Your task to perform on an android device: open app "YouTube Kids" (install if not already installed) and enter user name: "atmospheric@gmail.com" and password: "raze" Image 0: 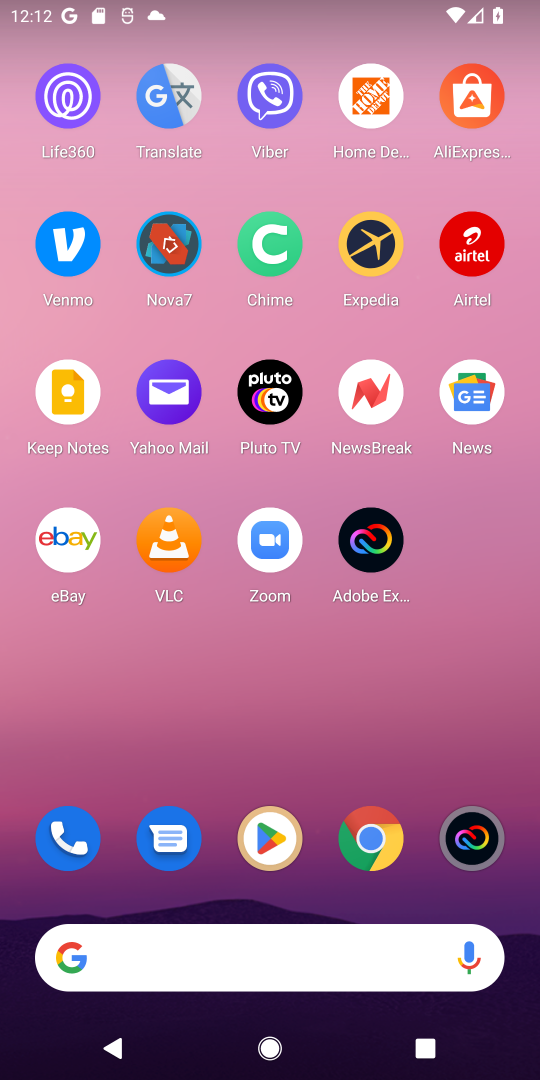
Step 0: click (258, 834)
Your task to perform on an android device: open app "YouTube Kids" (install if not already installed) and enter user name: "atmospheric@gmail.com" and password: "raze" Image 1: 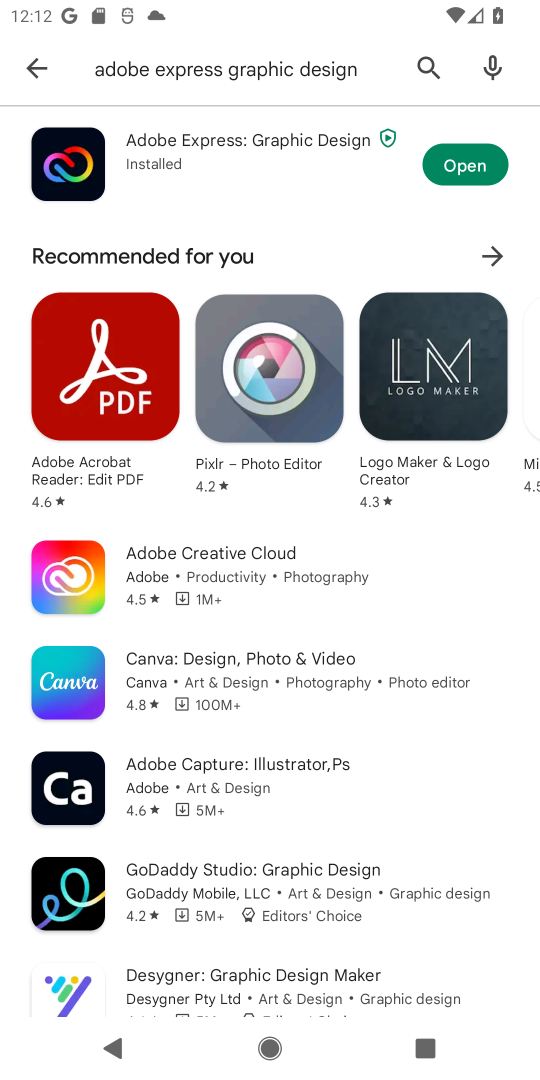
Step 1: click (469, 77)
Your task to perform on an android device: open app "YouTube Kids" (install if not already installed) and enter user name: "atmospheric@gmail.com" and password: "raze" Image 2: 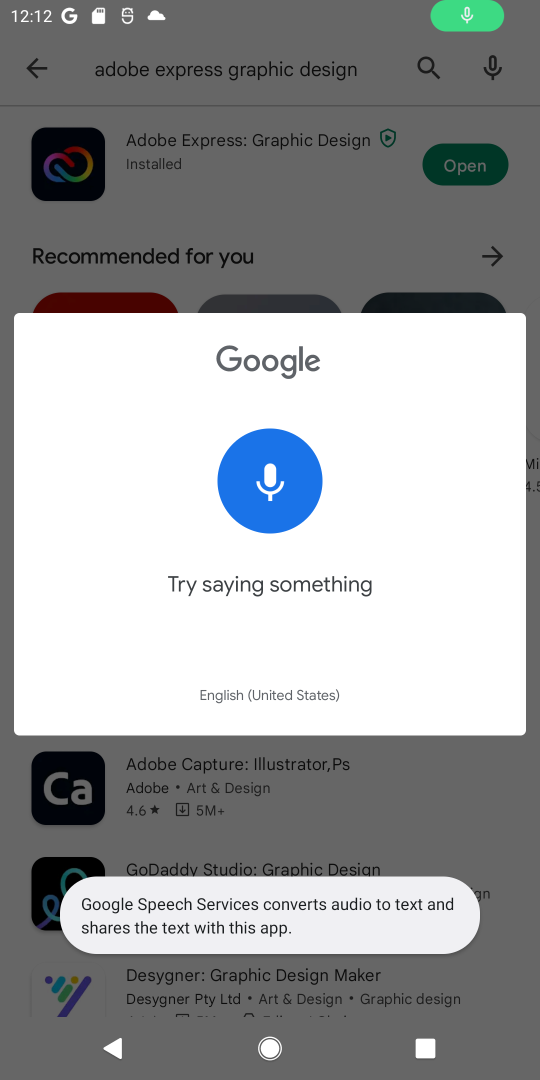
Step 2: click (435, 76)
Your task to perform on an android device: open app "YouTube Kids" (install if not already installed) and enter user name: "atmospheric@gmail.com" and password: "raze" Image 3: 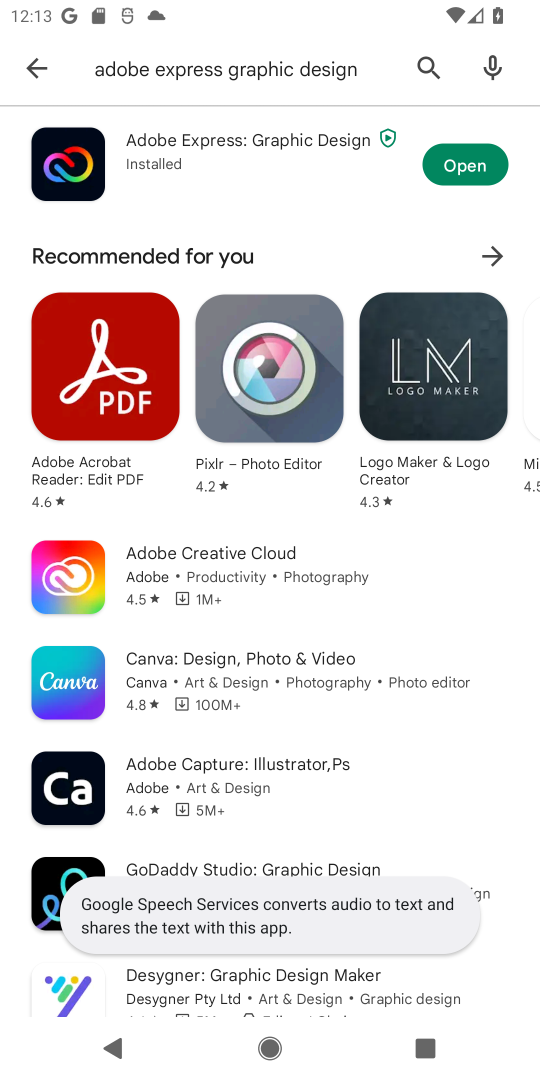
Step 3: click (422, 65)
Your task to perform on an android device: open app "YouTube Kids" (install if not already installed) and enter user name: "atmospheric@gmail.com" and password: "raze" Image 4: 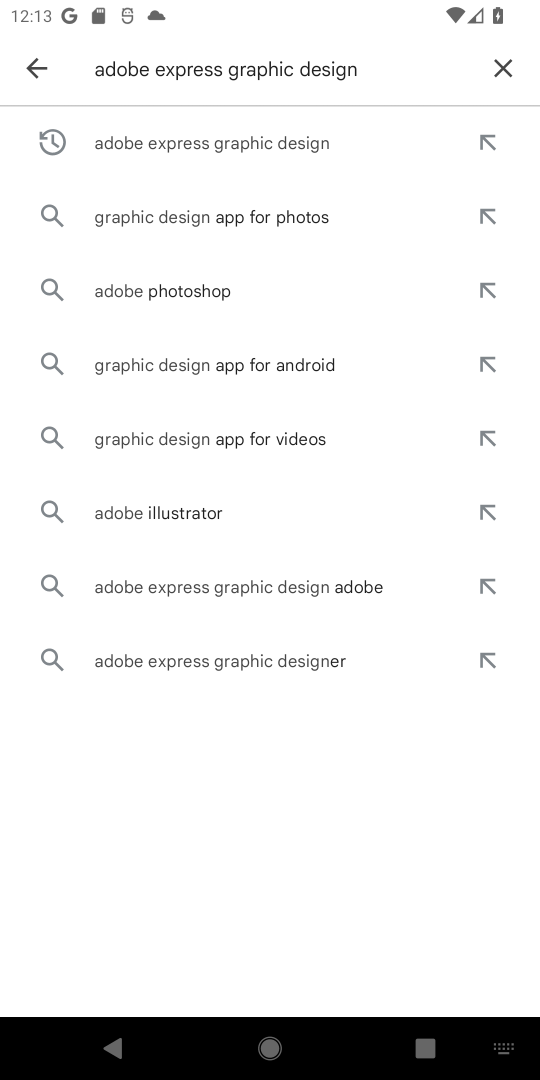
Step 4: click (512, 60)
Your task to perform on an android device: open app "YouTube Kids" (install if not already installed) and enter user name: "atmospheric@gmail.com" and password: "raze" Image 5: 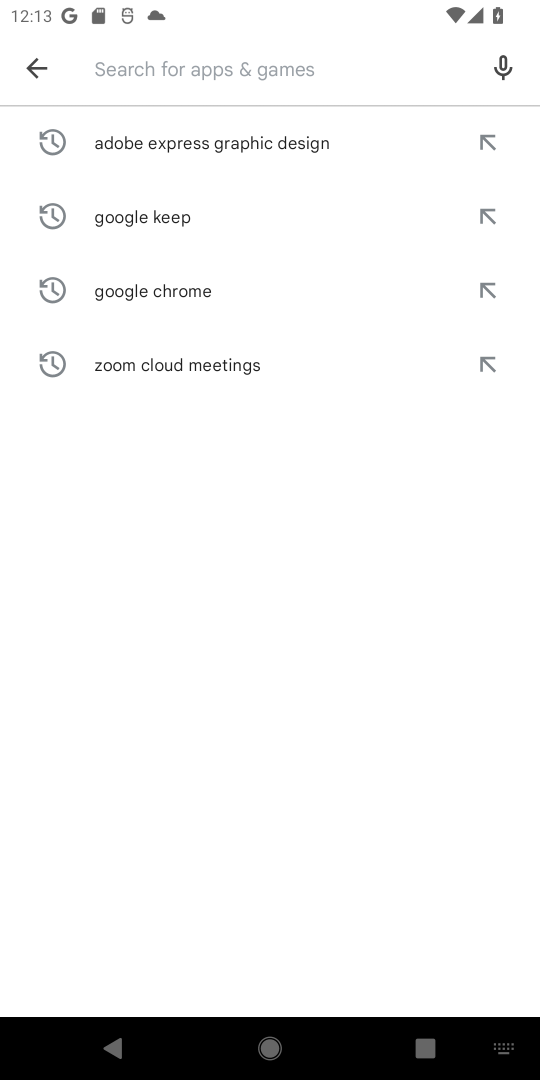
Step 5: type "YouTube Kids"
Your task to perform on an android device: open app "YouTube Kids" (install if not already installed) and enter user name: "atmospheric@gmail.com" and password: "raze" Image 6: 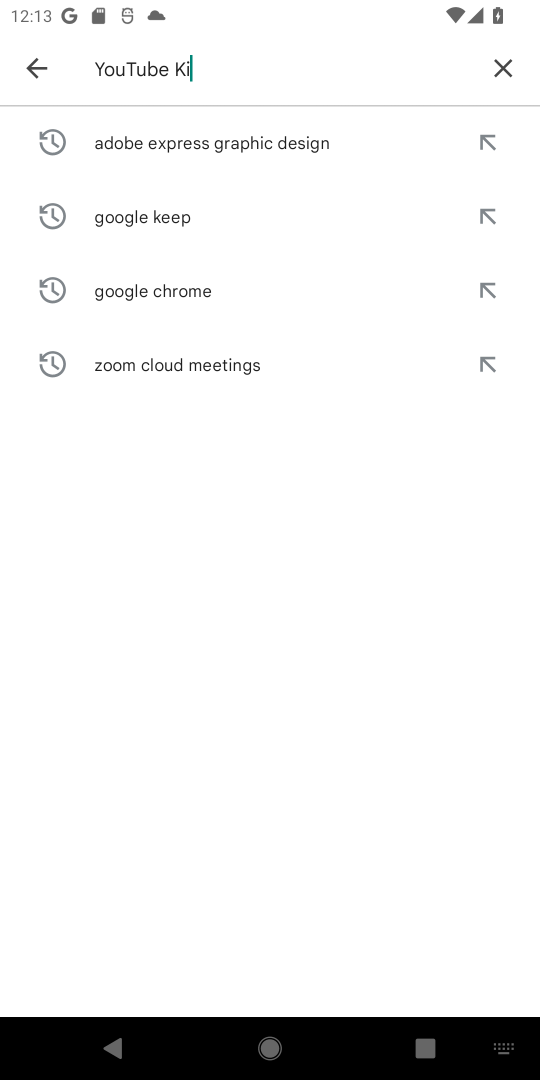
Step 6: type ""
Your task to perform on an android device: open app "YouTube Kids" (install if not already installed) and enter user name: "atmospheric@gmail.com" and password: "raze" Image 7: 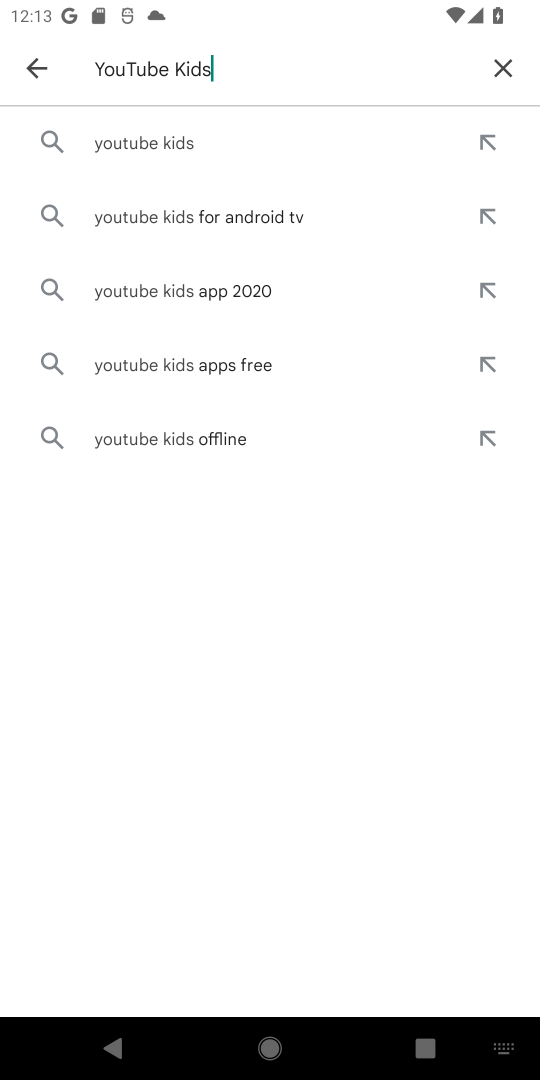
Step 7: click (215, 141)
Your task to perform on an android device: open app "YouTube Kids" (install if not already installed) and enter user name: "atmospheric@gmail.com" and password: "raze" Image 8: 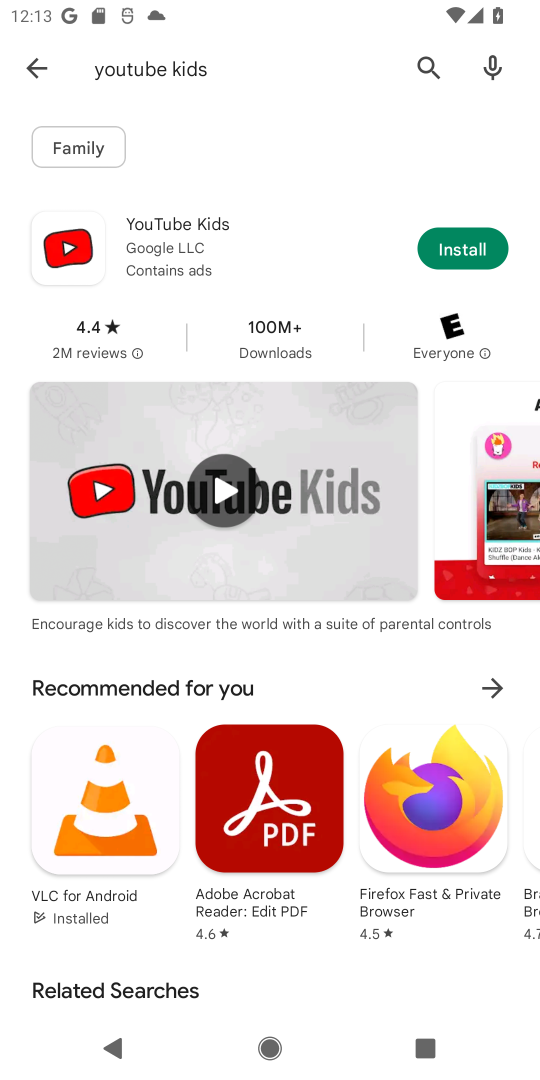
Step 8: click (452, 260)
Your task to perform on an android device: open app "YouTube Kids" (install if not already installed) and enter user name: "atmospheric@gmail.com" and password: "raze" Image 9: 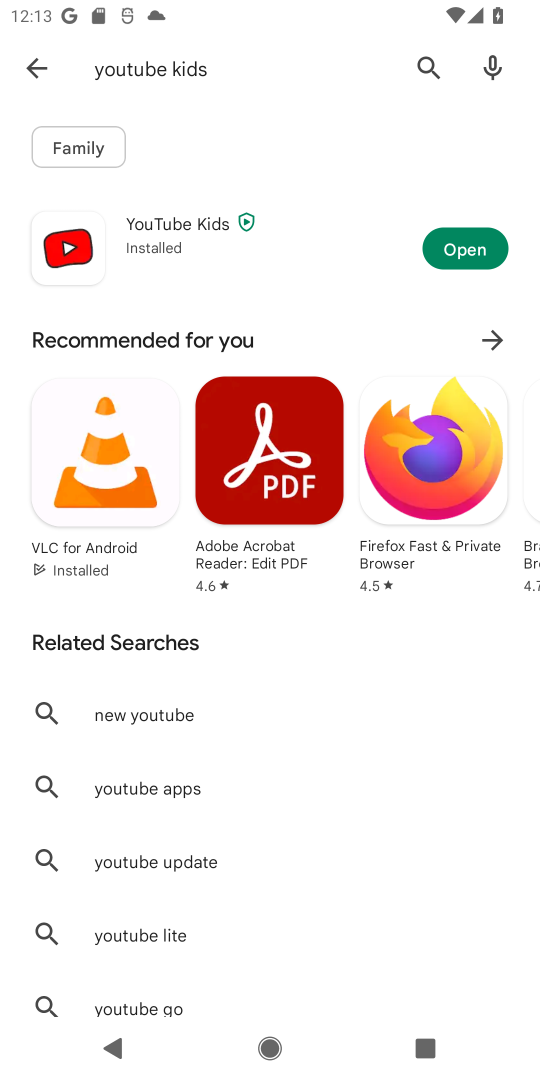
Step 9: click (468, 252)
Your task to perform on an android device: open app "YouTube Kids" (install if not already installed) and enter user name: "atmospheric@gmail.com" and password: "raze" Image 10: 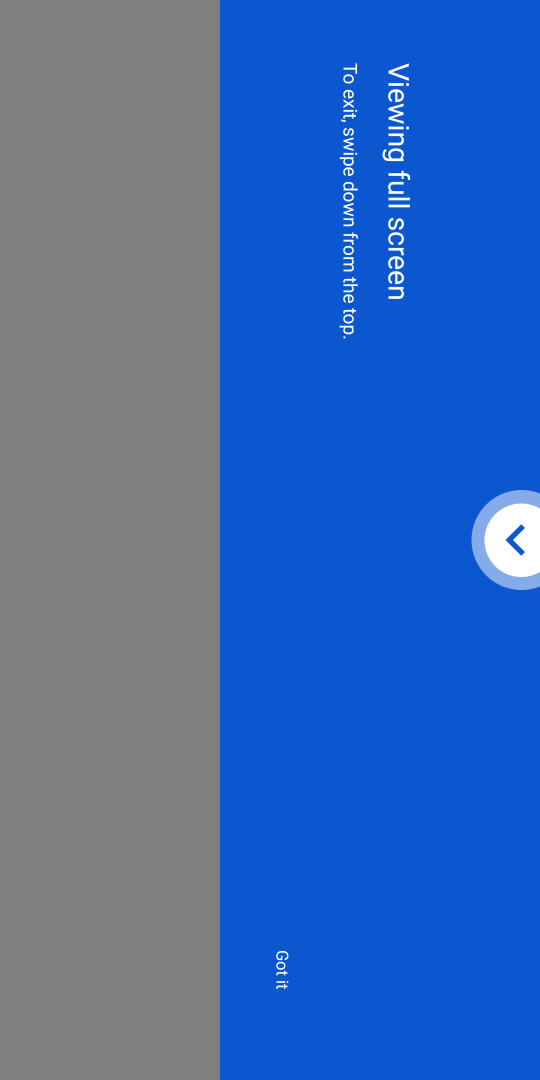
Step 10: task complete